Your task to perform on an android device: Turn off the flashlight Image 0: 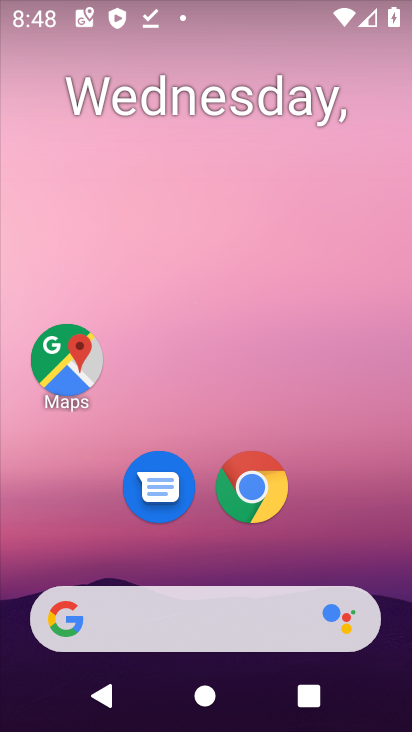
Step 0: drag from (131, 38) to (75, 4)
Your task to perform on an android device: Turn off the flashlight Image 1: 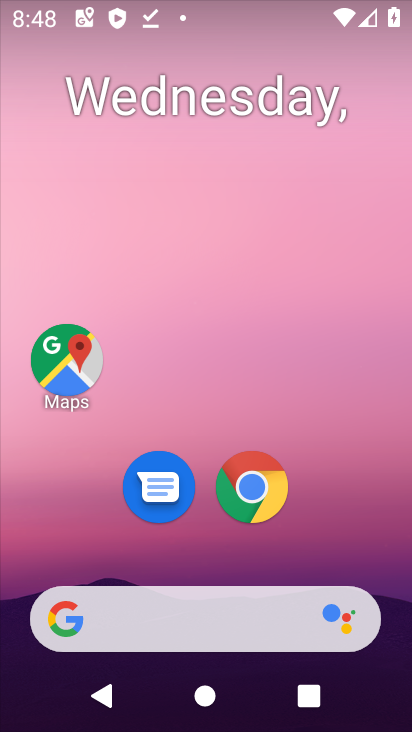
Step 1: task complete